Your task to perform on an android device: Show me productivity apps on the Play Store Image 0: 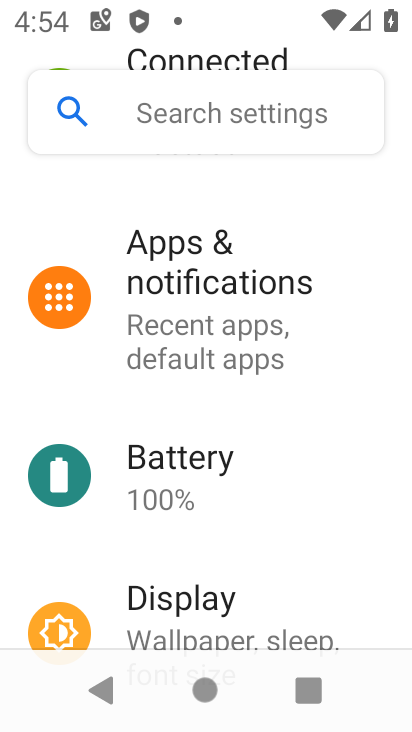
Step 0: press home button
Your task to perform on an android device: Show me productivity apps on the Play Store Image 1: 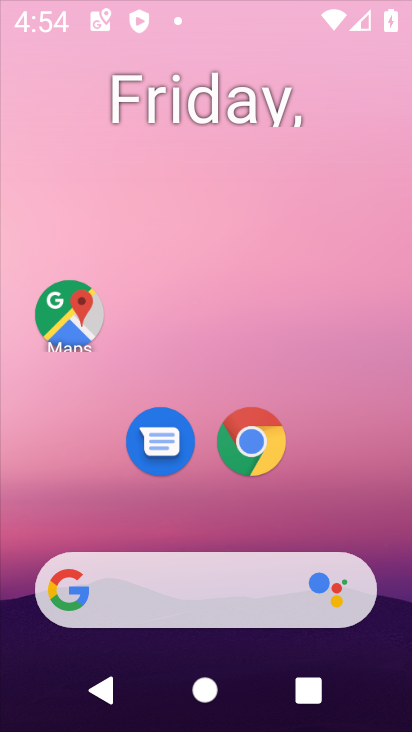
Step 1: press home button
Your task to perform on an android device: Show me productivity apps on the Play Store Image 2: 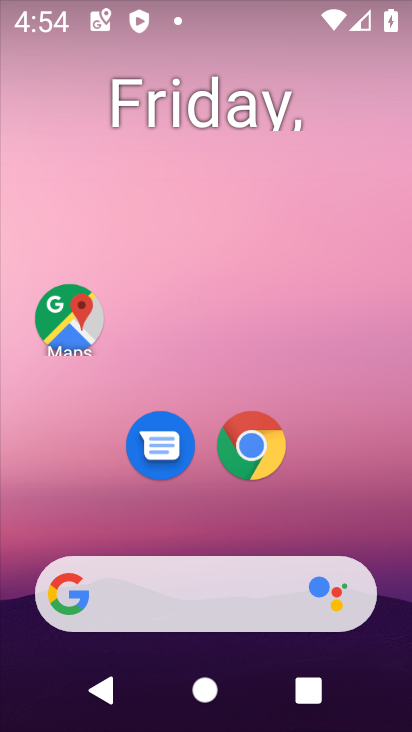
Step 2: drag from (315, 547) to (343, 5)
Your task to perform on an android device: Show me productivity apps on the Play Store Image 3: 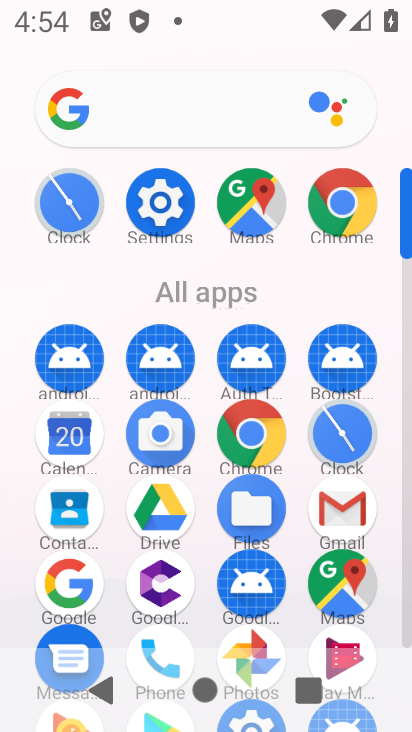
Step 3: click (408, 609)
Your task to perform on an android device: Show me productivity apps on the Play Store Image 4: 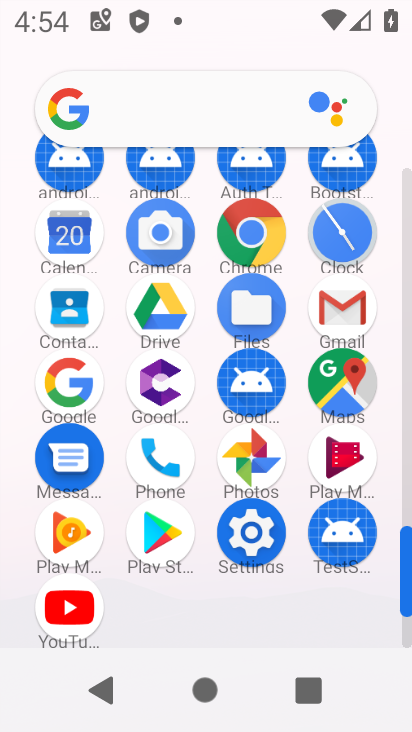
Step 4: click (408, 609)
Your task to perform on an android device: Show me productivity apps on the Play Store Image 5: 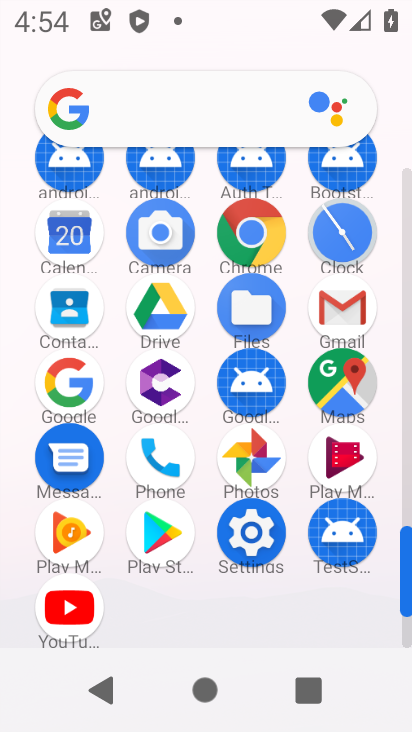
Step 5: click (156, 546)
Your task to perform on an android device: Show me productivity apps on the Play Store Image 6: 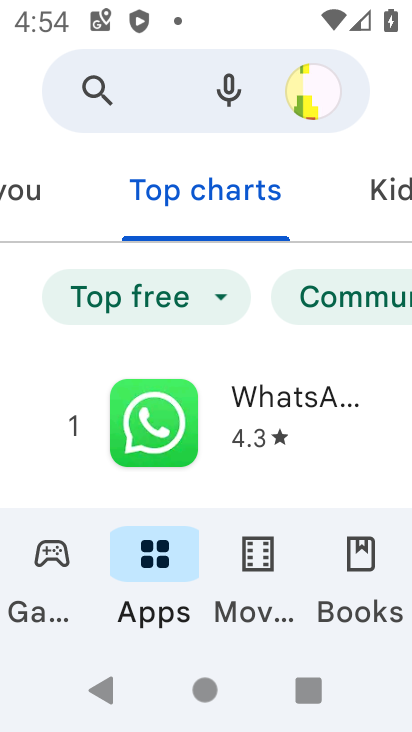
Step 6: click (163, 118)
Your task to perform on an android device: Show me productivity apps on the Play Store Image 7: 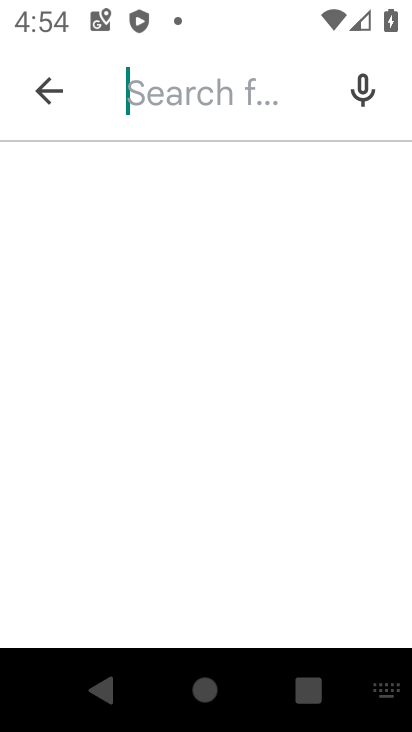
Step 7: click (31, 85)
Your task to perform on an android device: Show me productivity apps on the Play Store Image 8: 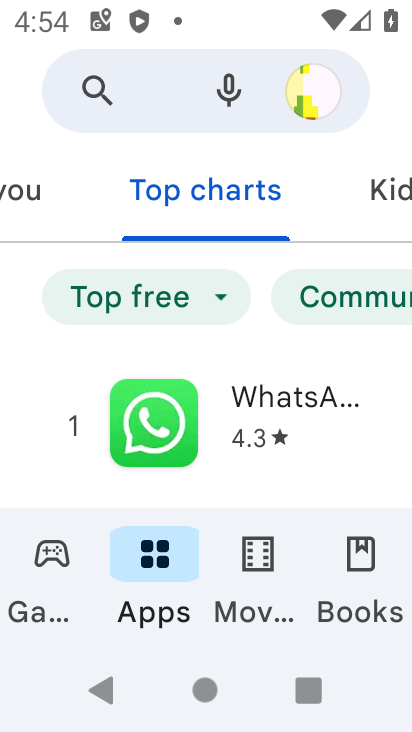
Step 8: click (378, 306)
Your task to perform on an android device: Show me productivity apps on the Play Store Image 9: 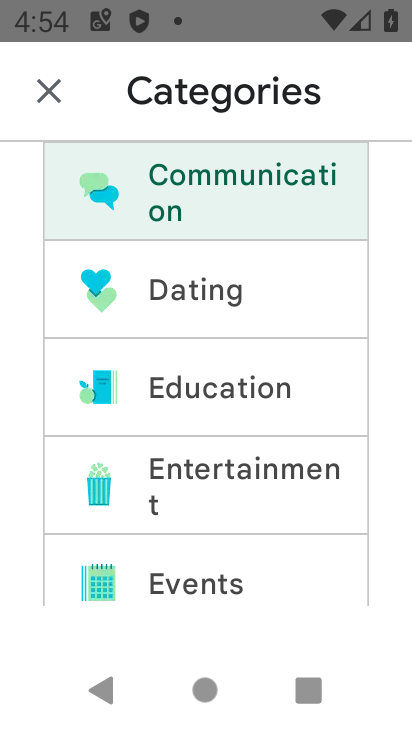
Step 9: drag from (270, 593) to (260, 258)
Your task to perform on an android device: Show me productivity apps on the Play Store Image 10: 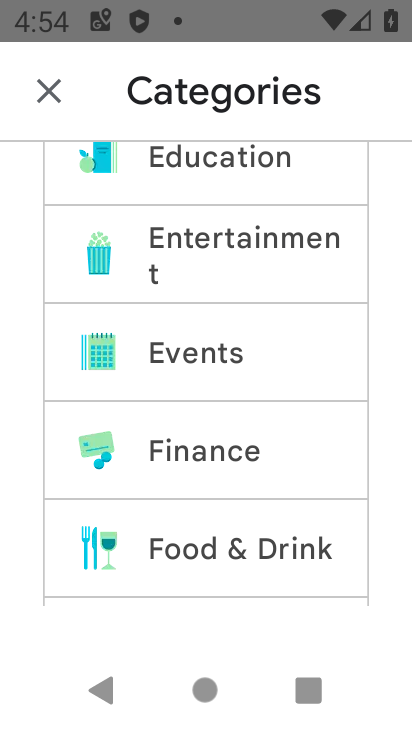
Step 10: drag from (240, 576) to (232, 267)
Your task to perform on an android device: Show me productivity apps on the Play Store Image 11: 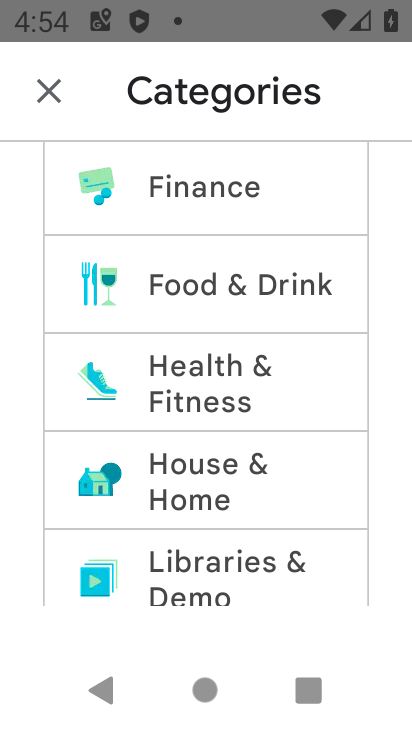
Step 11: drag from (258, 590) to (262, 348)
Your task to perform on an android device: Show me productivity apps on the Play Store Image 12: 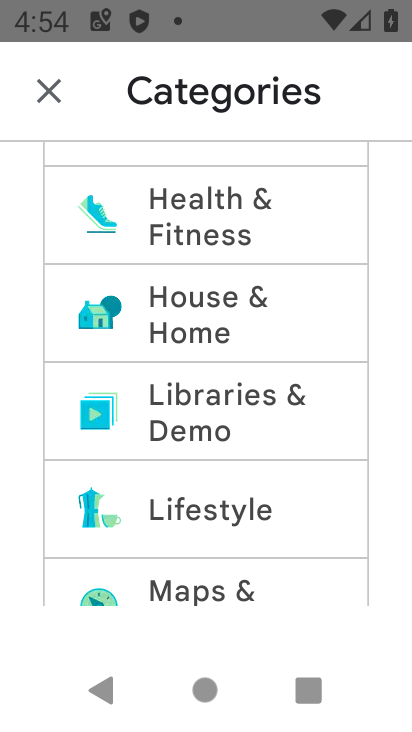
Step 12: drag from (252, 584) to (240, 236)
Your task to perform on an android device: Show me productivity apps on the Play Store Image 13: 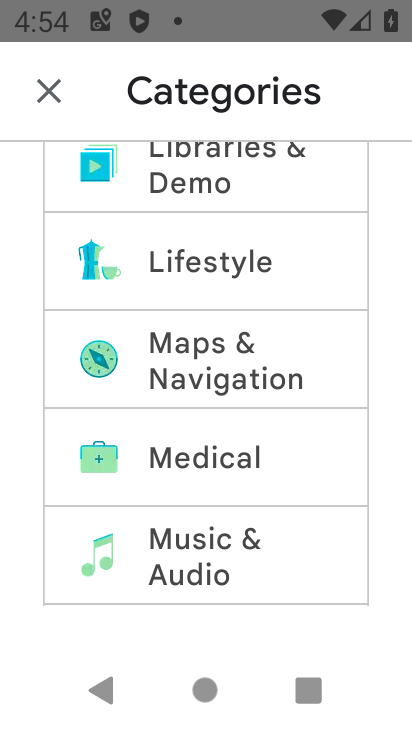
Step 13: drag from (257, 544) to (261, 350)
Your task to perform on an android device: Show me productivity apps on the Play Store Image 14: 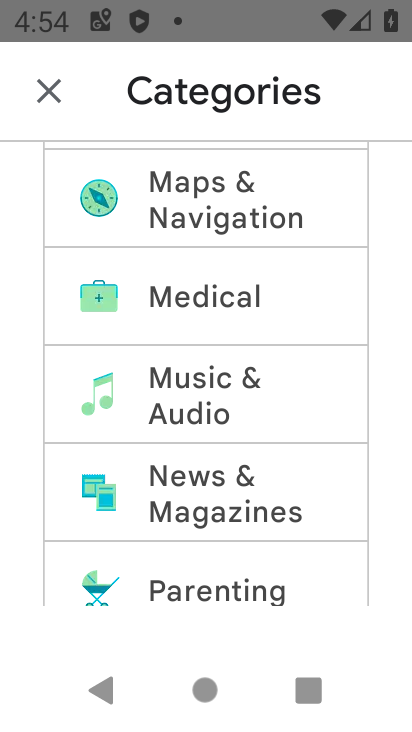
Step 14: drag from (288, 562) to (286, 203)
Your task to perform on an android device: Show me productivity apps on the Play Store Image 15: 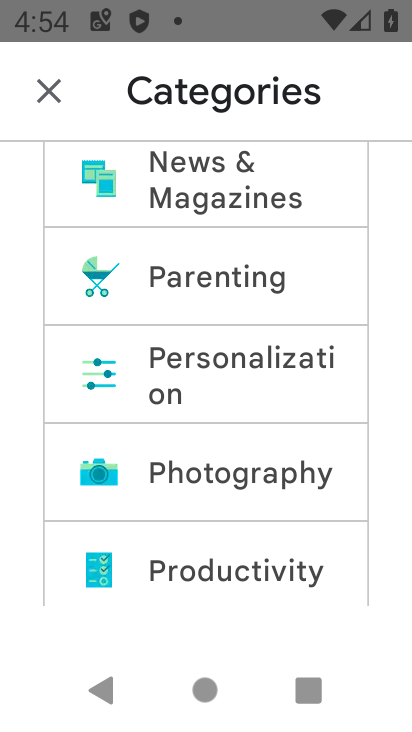
Step 15: click (297, 479)
Your task to perform on an android device: Show me productivity apps on the Play Store Image 16: 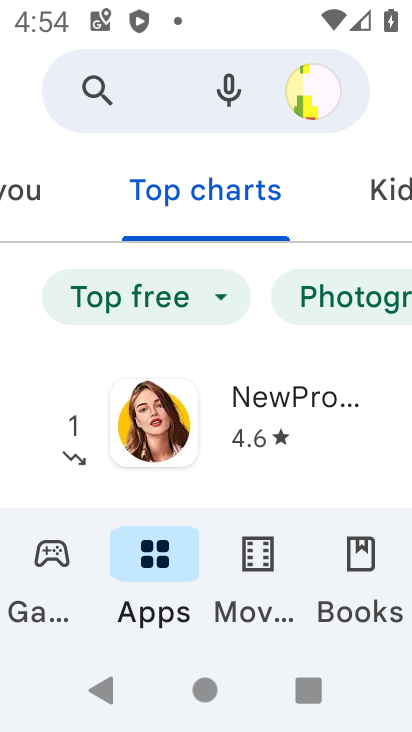
Step 16: task complete